Your task to perform on an android device: move a message to another label in the gmail app Image 0: 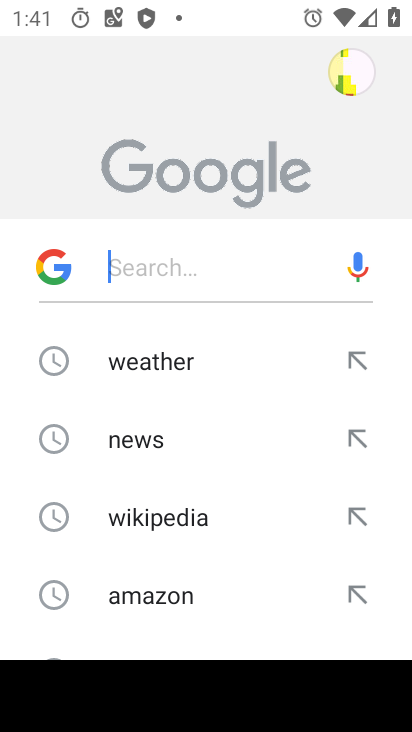
Step 0: press home button
Your task to perform on an android device: move a message to another label in the gmail app Image 1: 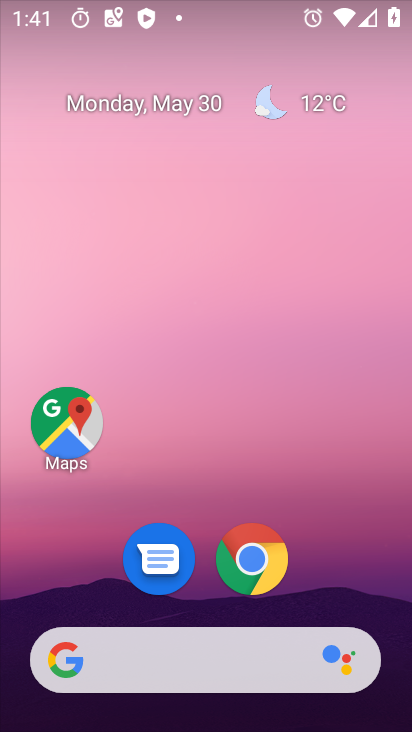
Step 1: drag from (177, 502) to (246, 58)
Your task to perform on an android device: move a message to another label in the gmail app Image 2: 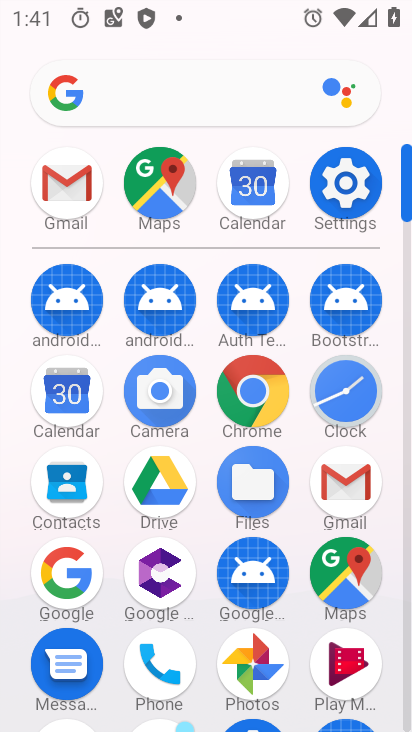
Step 2: click (66, 181)
Your task to perform on an android device: move a message to another label in the gmail app Image 3: 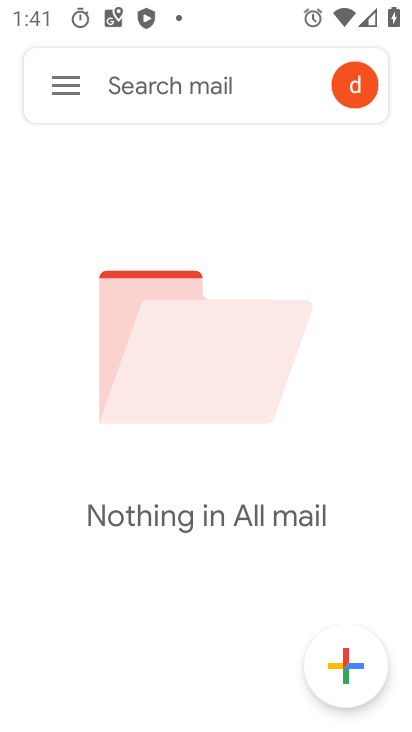
Step 3: click (47, 75)
Your task to perform on an android device: move a message to another label in the gmail app Image 4: 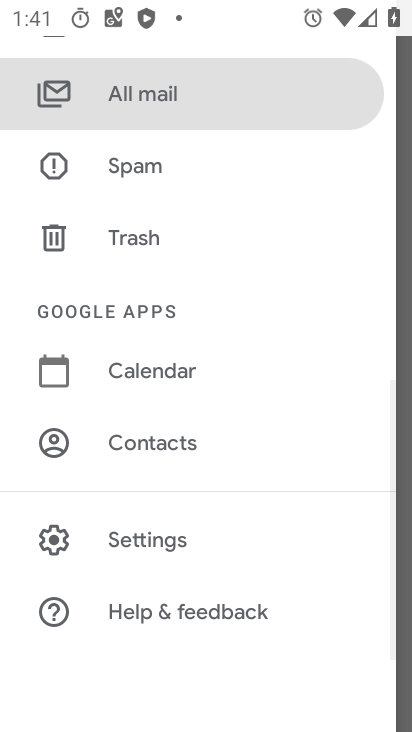
Step 4: task complete